Your task to perform on an android device: all mails in gmail Image 0: 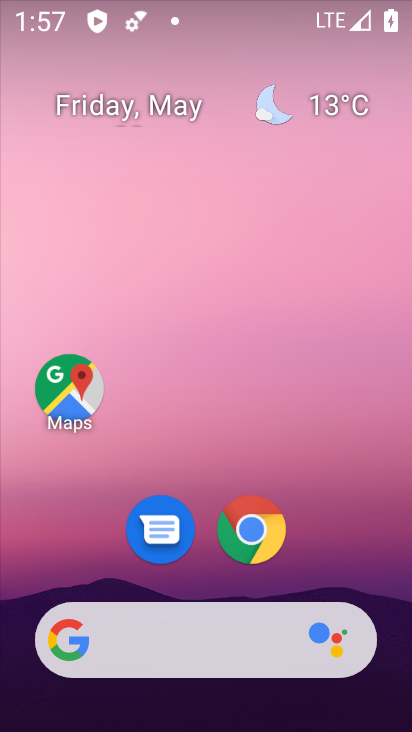
Step 0: drag from (335, 517) to (277, 105)
Your task to perform on an android device: all mails in gmail Image 1: 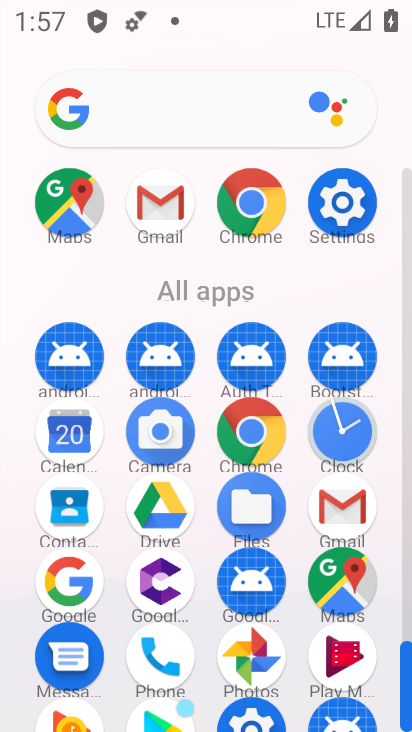
Step 1: click (343, 515)
Your task to perform on an android device: all mails in gmail Image 2: 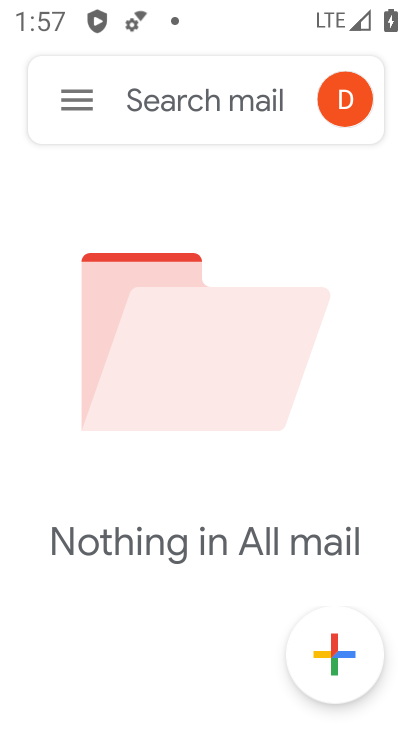
Step 2: task complete